Your task to perform on an android device: Show me the alarms in the clock app Image 0: 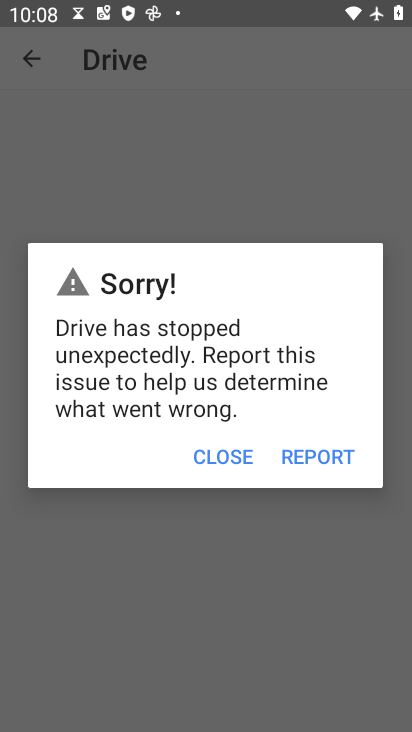
Step 0: press back button
Your task to perform on an android device: Show me the alarms in the clock app Image 1: 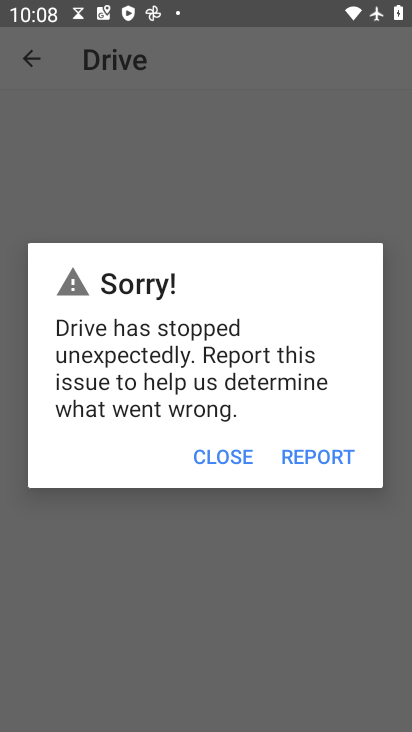
Step 1: press home button
Your task to perform on an android device: Show me the alarms in the clock app Image 2: 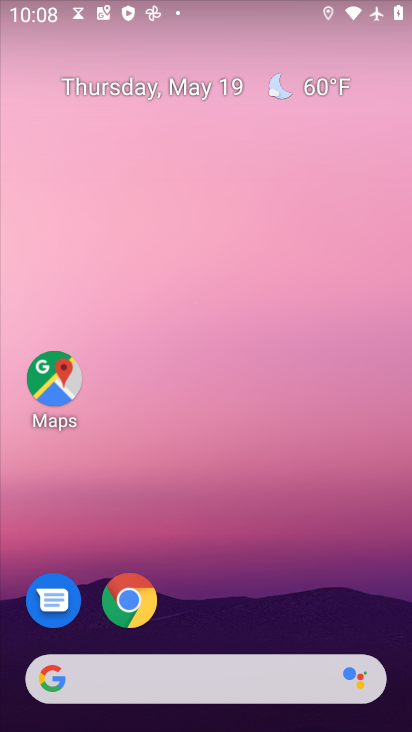
Step 2: drag from (259, 586) to (178, 29)
Your task to perform on an android device: Show me the alarms in the clock app Image 3: 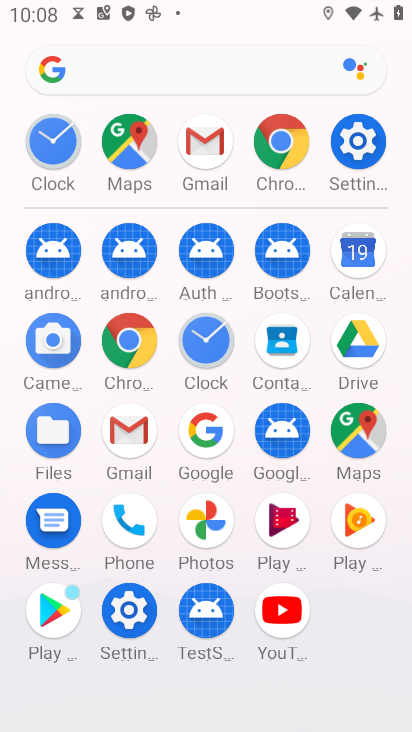
Step 3: click (203, 334)
Your task to perform on an android device: Show me the alarms in the clock app Image 4: 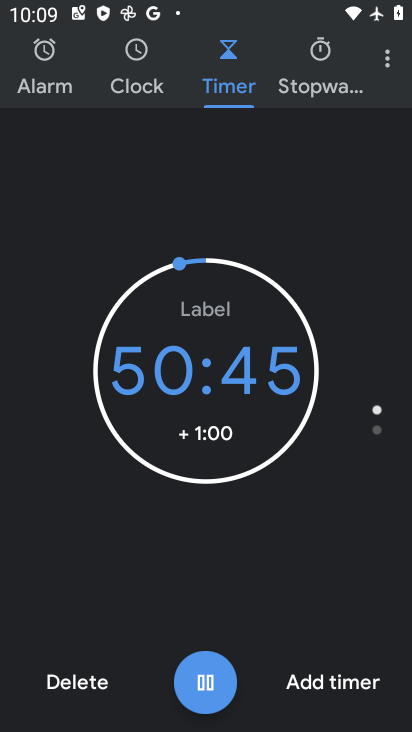
Step 4: click (51, 56)
Your task to perform on an android device: Show me the alarms in the clock app Image 5: 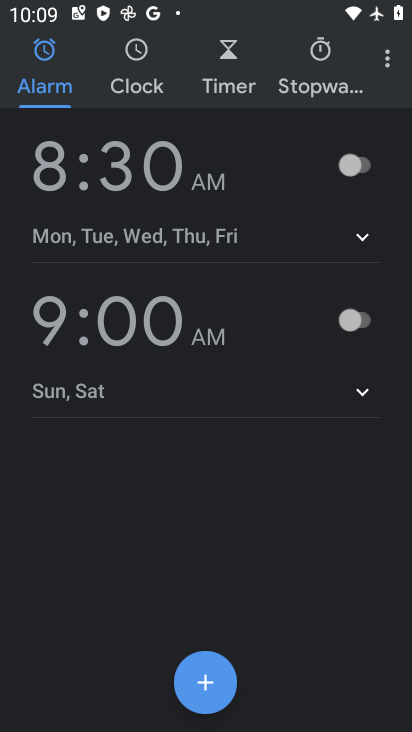
Step 5: task complete